Your task to perform on an android device: Open Google Chrome Image 0: 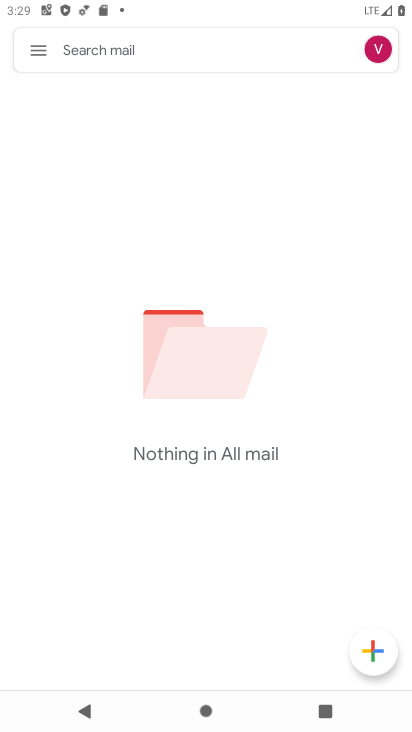
Step 0: press home button
Your task to perform on an android device: Open Google Chrome Image 1: 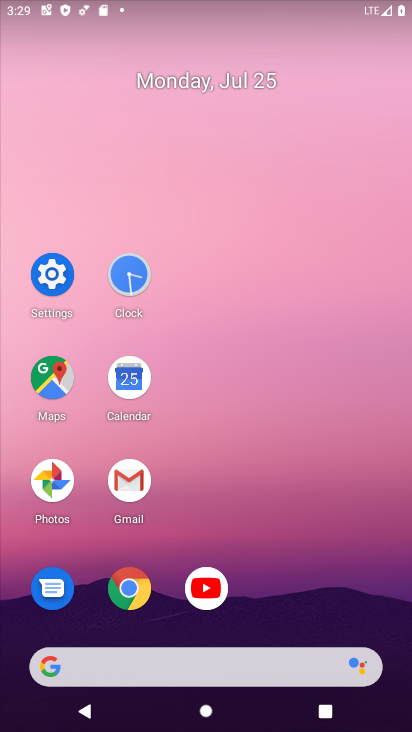
Step 1: click (125, 584)
Your task to perform on an android device: Open Google Chrome Image 2: 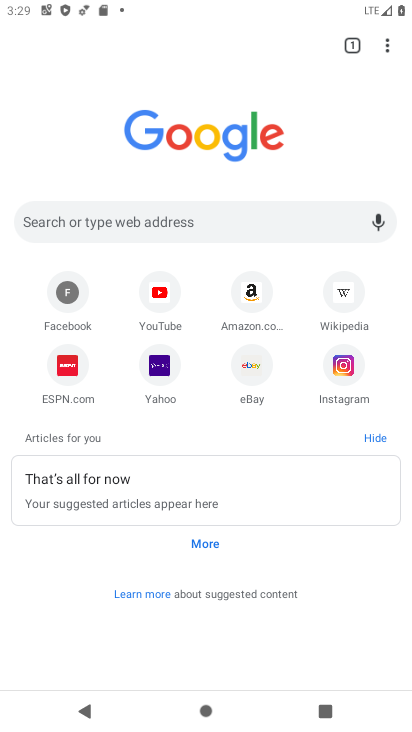
Step 2: task complete